Your task to perform on an android device: What's the time in San Francisco? Image 0: 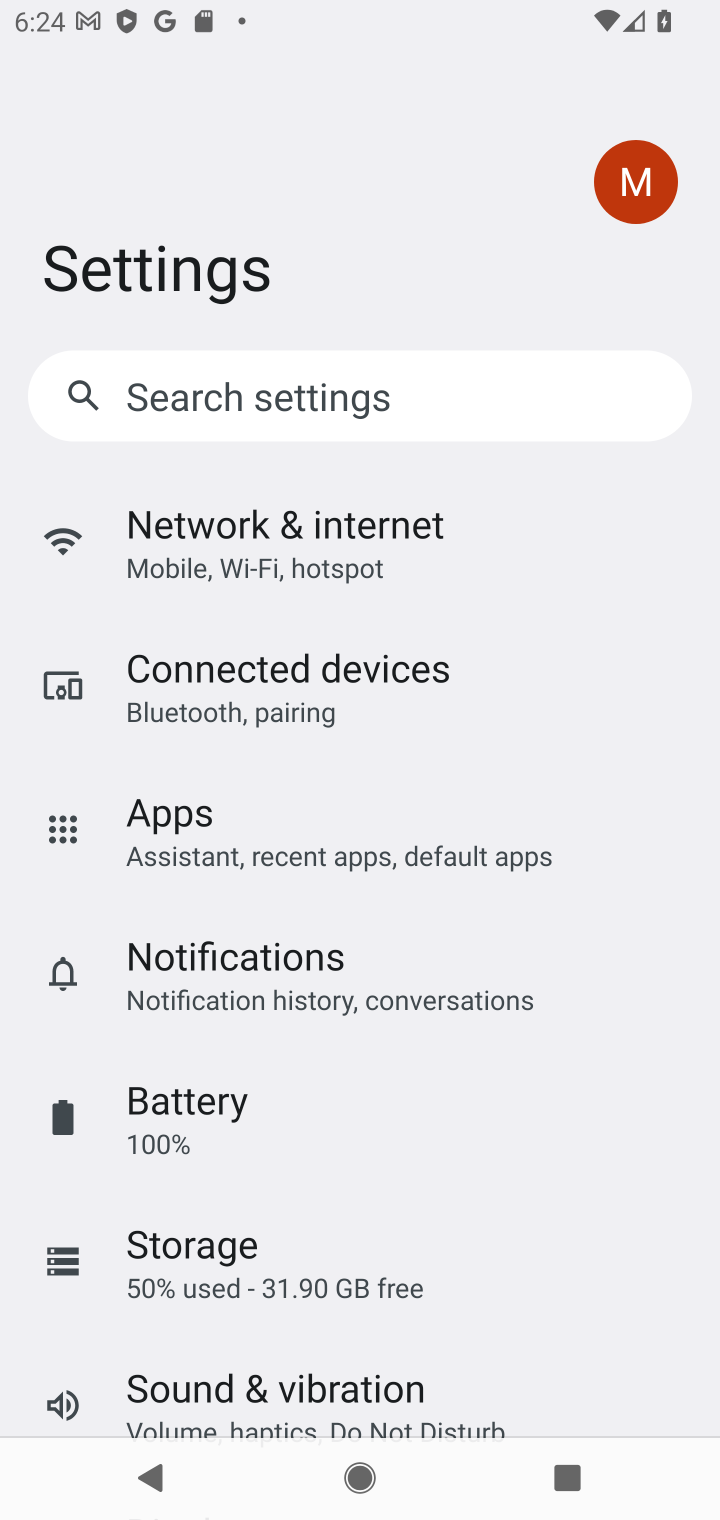
Step 0: press home button
Your task to perform on an android device: What's the time in San Francisco? Image 1: 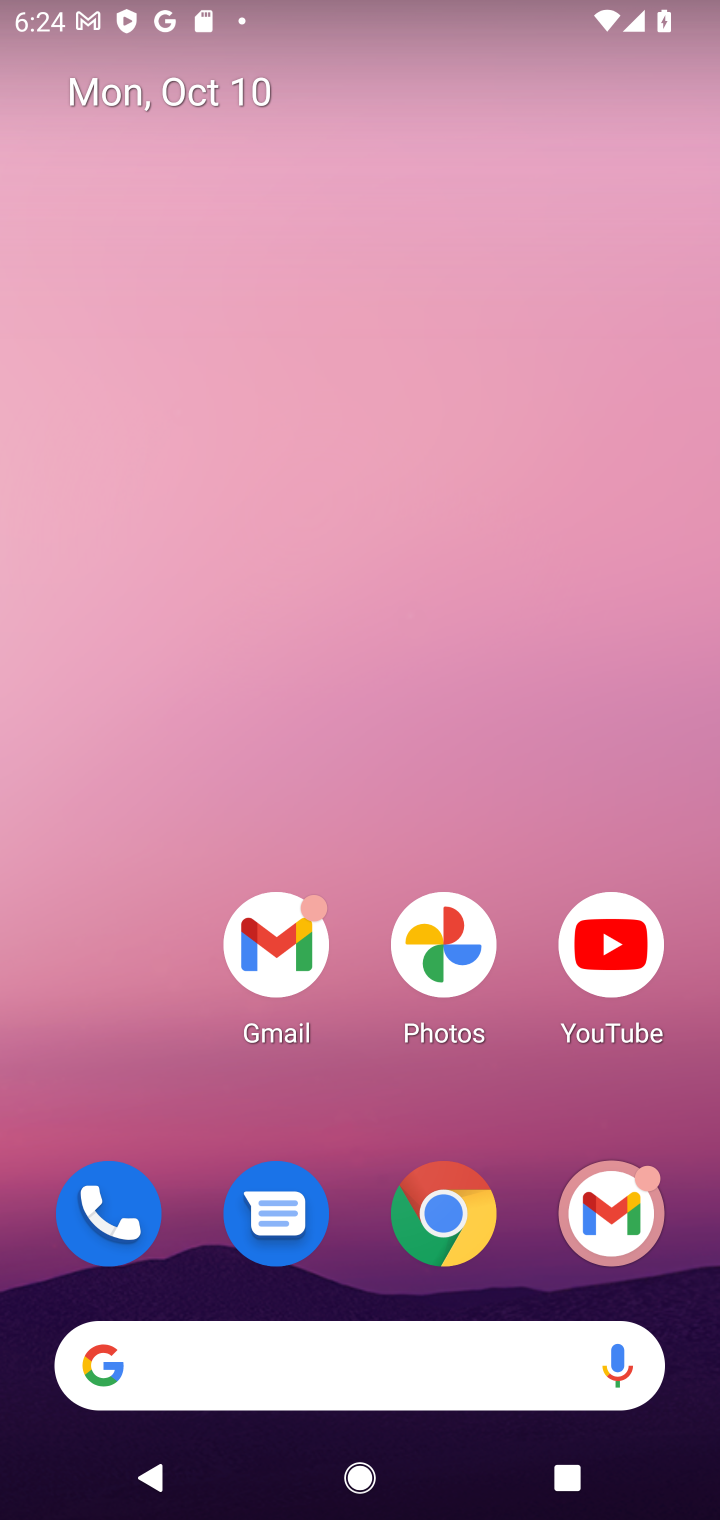
Step 1: click (326, 1365)
Your task to perform on an android device: What's the time in San Francisco? Image 2: 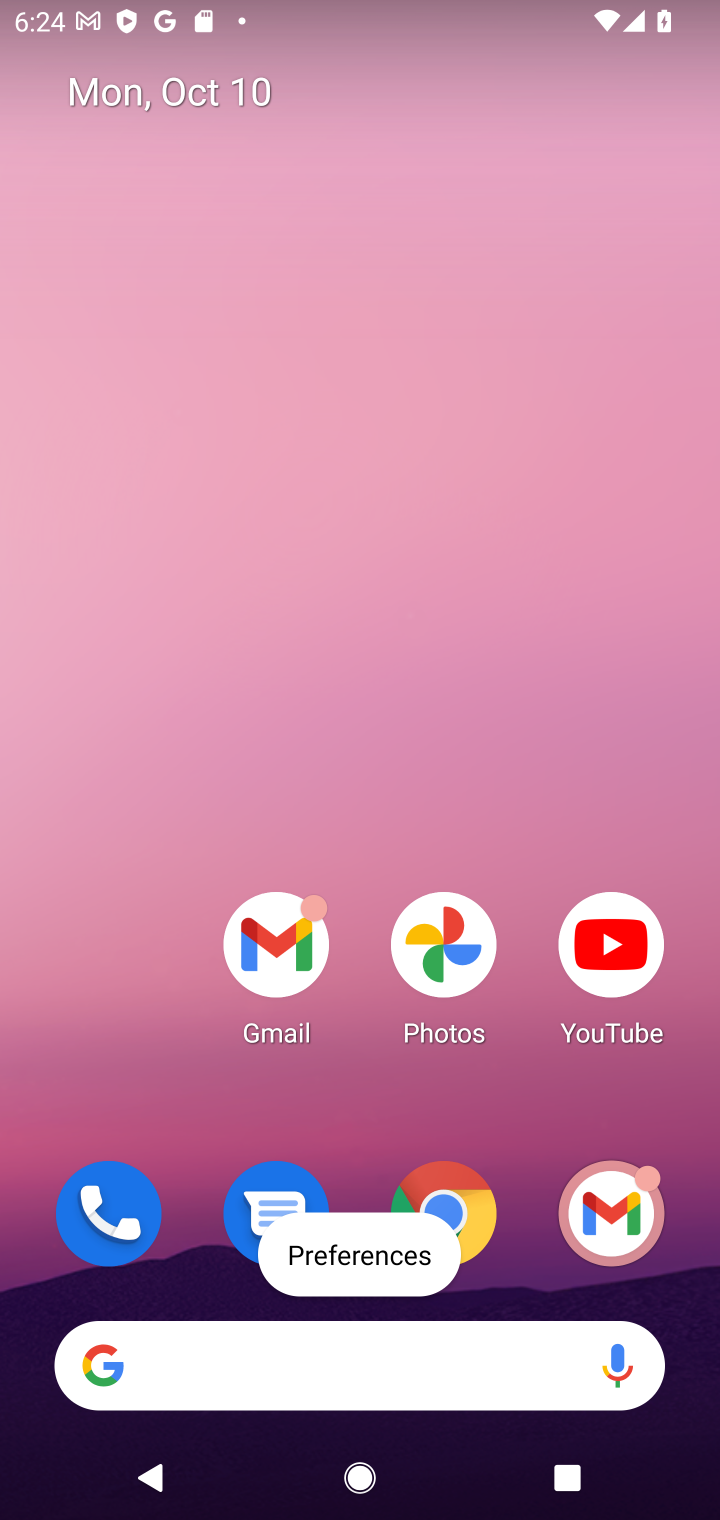
Step 2: click (328, 1362)
Your task to perform on an android device: What's the time in San Francisco? Image 3: 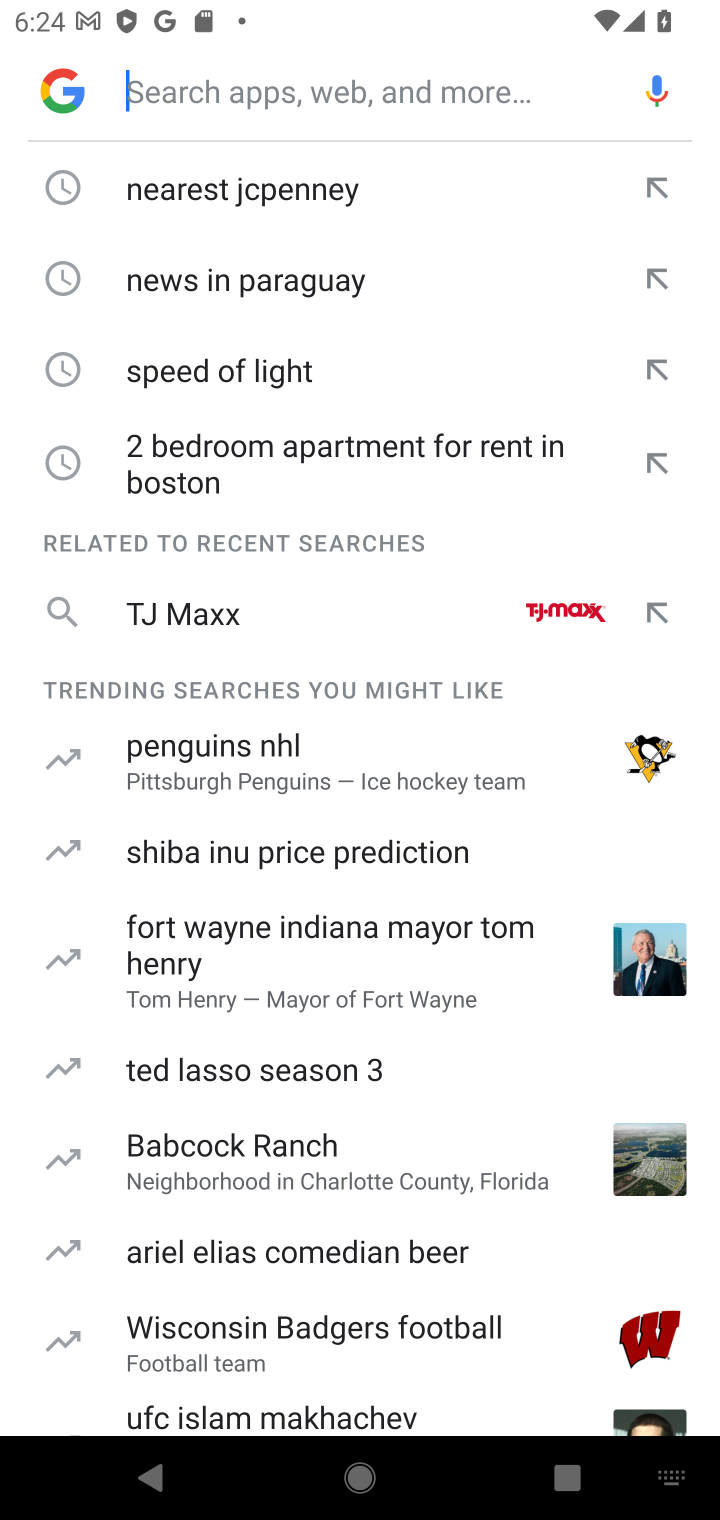
Step 3: type "time in San Francisco"
Your task to perform on an android device: What's the time in San Francisco? Image 4: 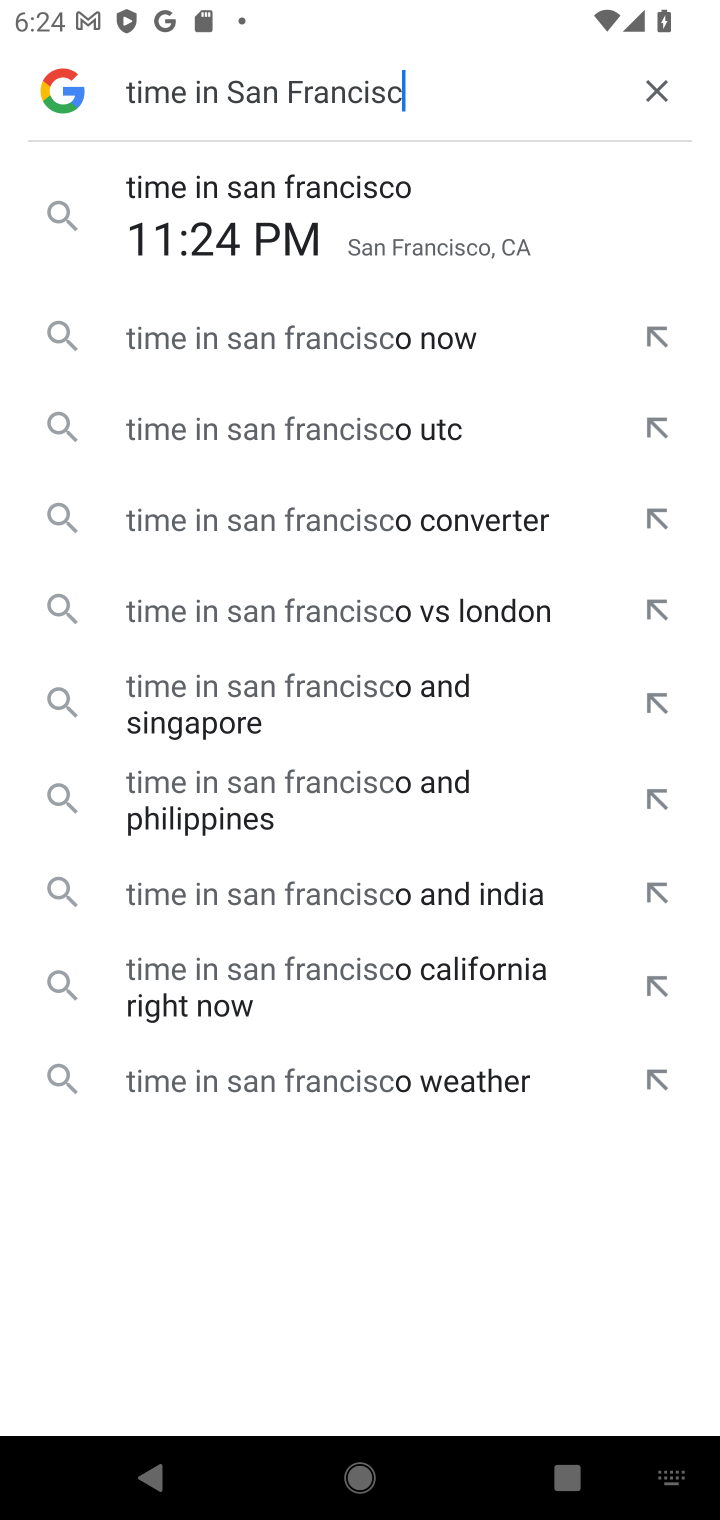
Step 4: type ""
Your task to perform on an android device: What's the time in San Francisco? Image 5: 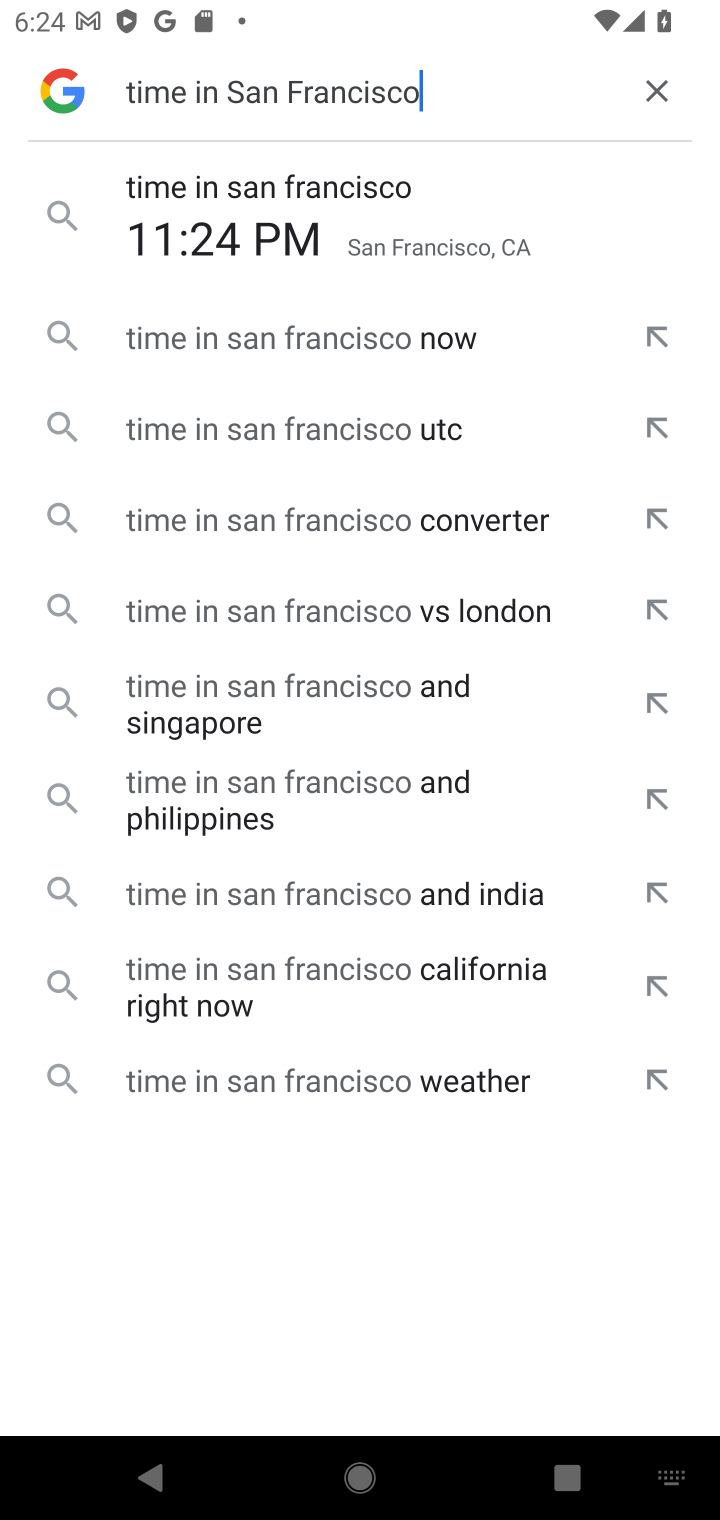
Step 5: click (452, 193)
Your task to perform on an android device: What's the time in San Francisco? Image 6: 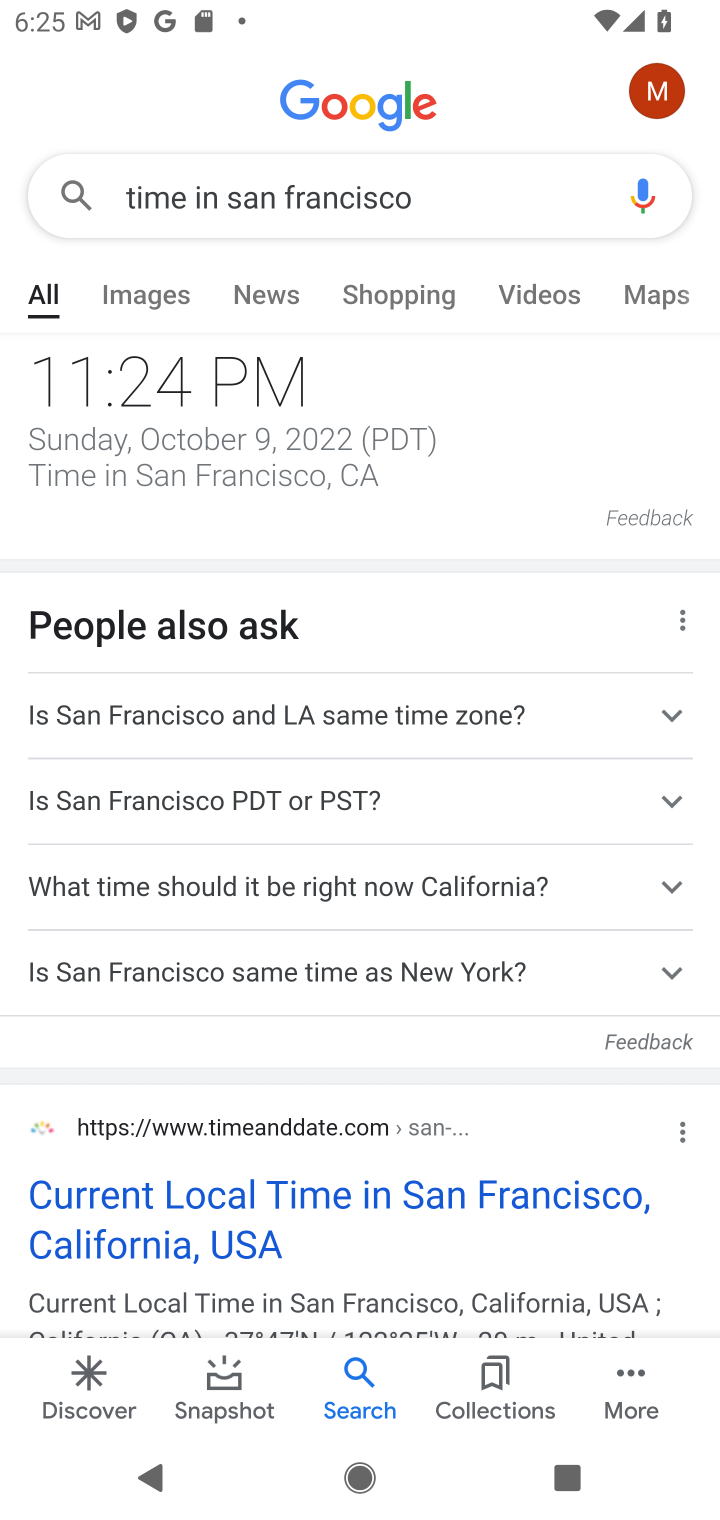
Step 6: task complete